Your task to perform on an android device: visit the assistant section in the google photos Image 0: 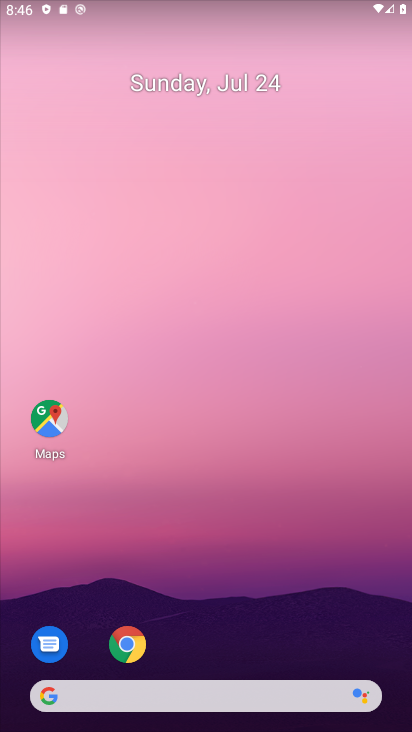
Step 0: drag from (194, 480) to (241, 253)
Your task to perform on an android device: visit the assistant section in the google photos Image 1: 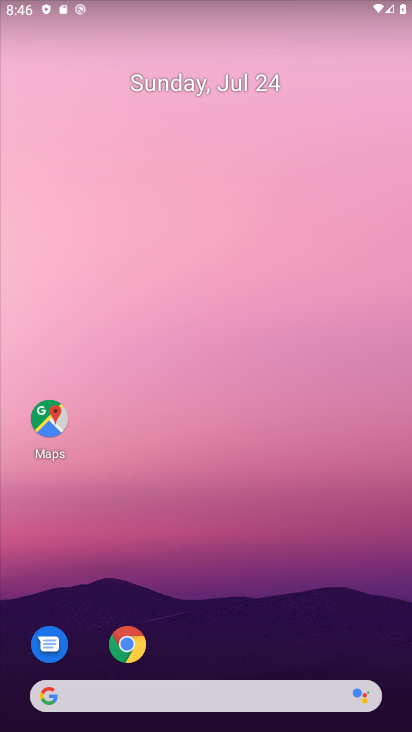
Step 1: drag from (224, 599) to (235, 225)
Your task to perform on an android device: visit the assistant section in the google photos Image 2: 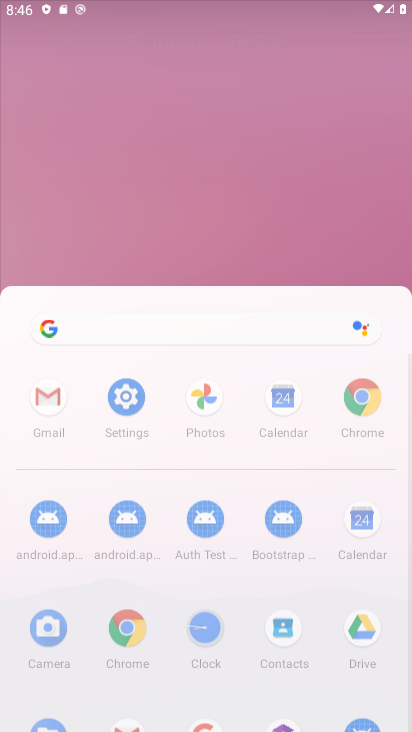
Step 2: drag from (284, 569) to (263, 147)
Your task to perform on an android device: visit the assistant section in the google photos Image 3: 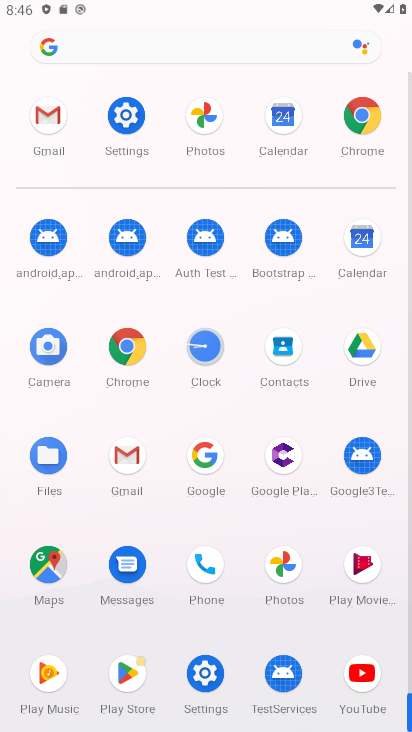
Step 3: drag from (178, 575) to (180, 225)
Your task to perform on an android device: visit the assistant section in the google photos Image 4: 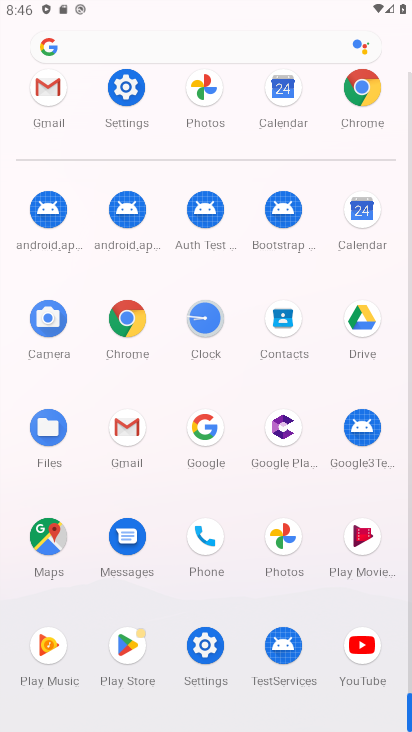
Step 4: drag from (242, 664) to (244, 441)
Your task to perform on an android device: visit the assistant section in the google photos Image 5: 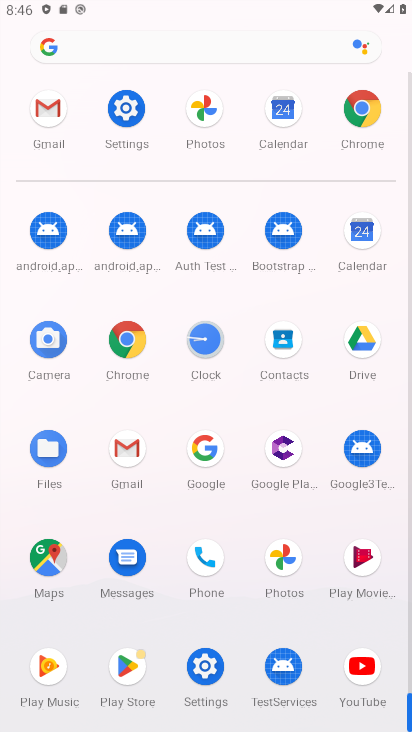
Step 5: click (279, 561)
Your task to perform on an android device: visit the assistant section in the google photos Image 6: 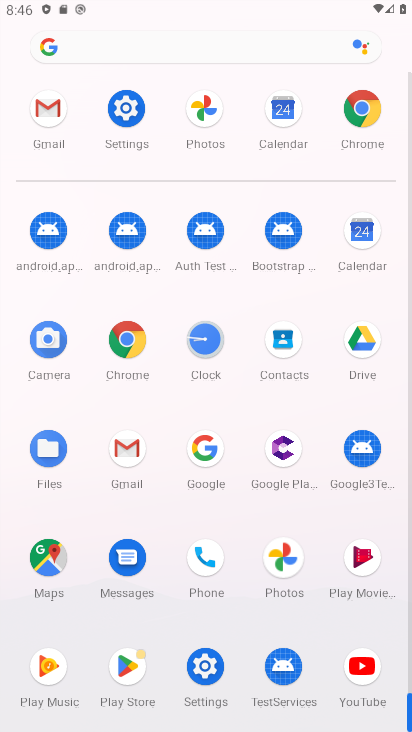
Step 6: click (280, 560)
Your task to perform on an android device: visit the assistant section in the google photos Image 7: 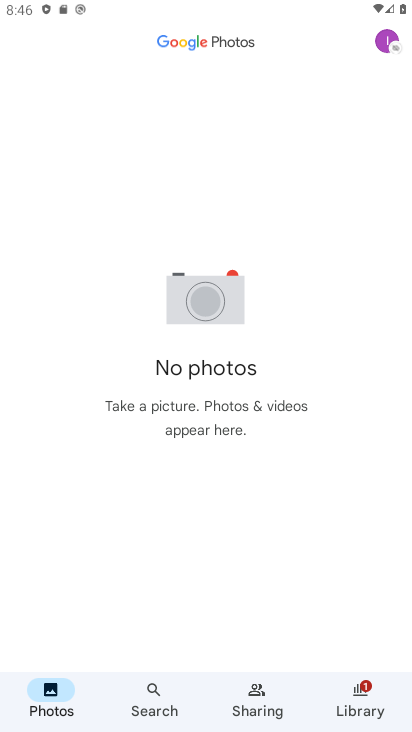
Step 7: drag from (111, 130) to (221, 563)
Your task to perform on an android device: visit the assistant section in the google photos Image 8: 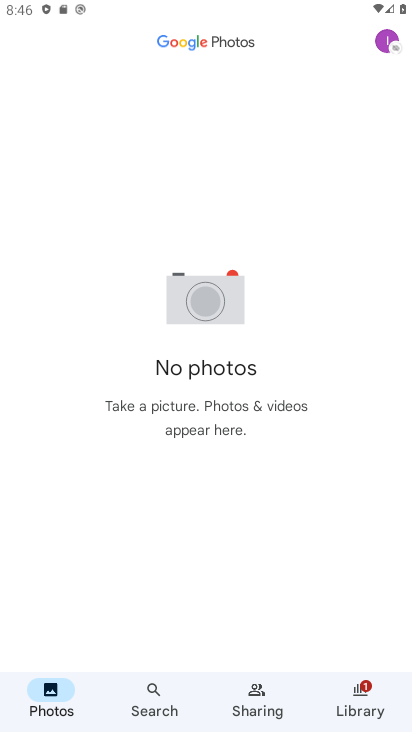
Step 8: drag from (180, 333) to (204, 722)
Your task to perform on an android device: visit the assistant section in the google photos Image 9: 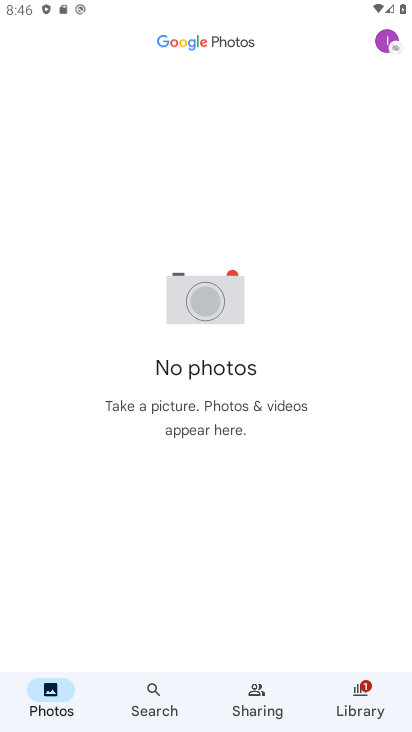
Step 9: drag from (134, 438) to (348, 677)
Your task to perform on an android device: visit the assistant section in the google photos Image 10: 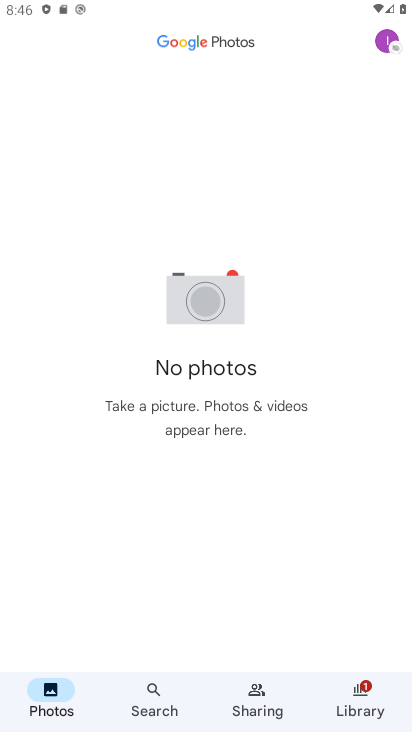
Step 10: drag from (343, 443) to (368, 685)
Your task to perform on an android device: visit the assistant section in the google photos Image 11: 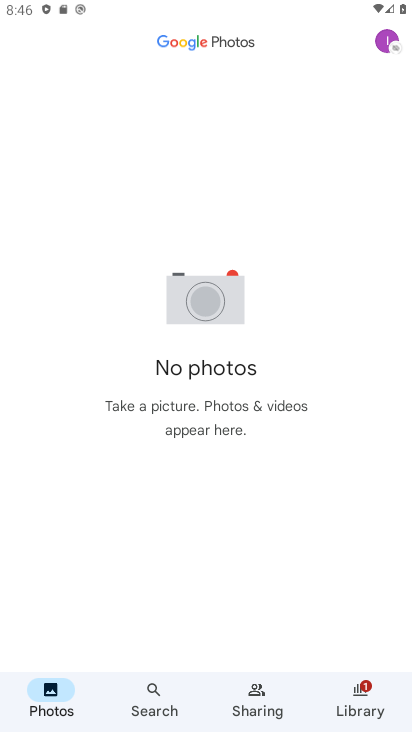
Step 11: drag from (296, 268) to (271, 629)
Your task to perform on an android device: visit the assistant section in the google photos Image 12: 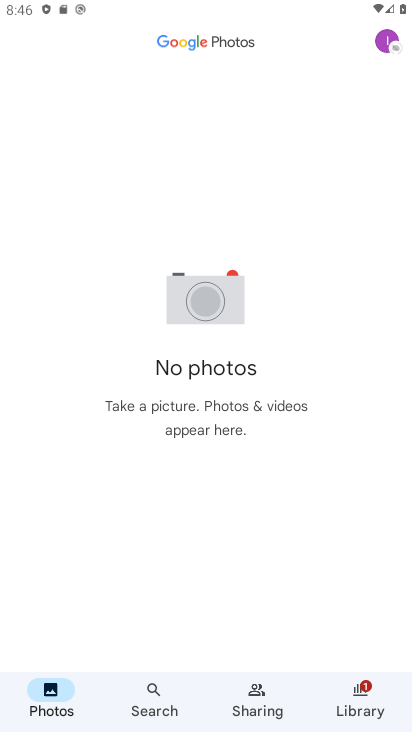
Step 12: drag from (225, 316) to (258, 697)
Your task to perform on an android device: visit the assistant section in the google photos Image 13: 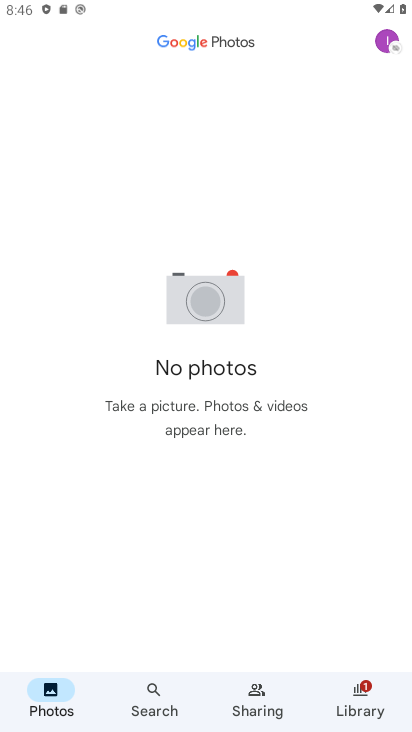
Step 13: click (373, 43)
Your task to perform on an android device: visit the assistant section in the google photos Image 14: 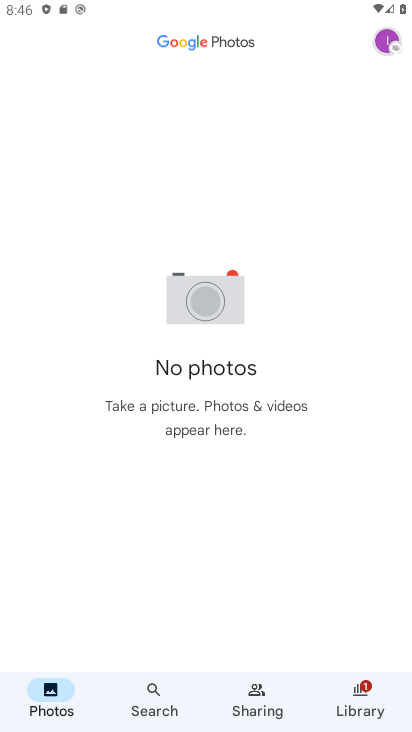
Step 14: click (375, 41)
Your task to perform on an android device: visit the assistant section in the google photos Image 15: 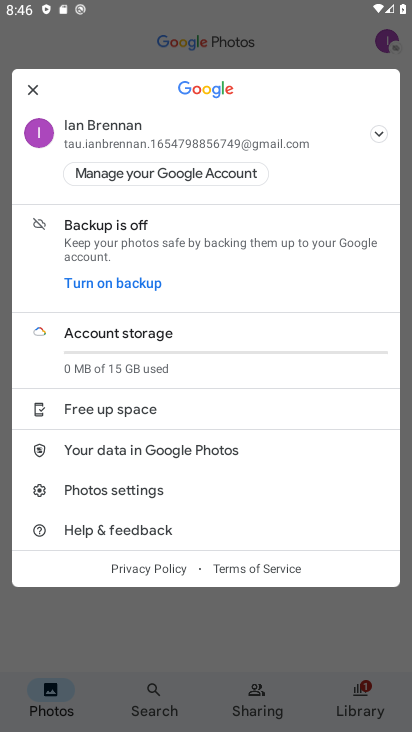
Step 15: click (85, 32)
Your task to perform on an android device: visit the assistant section in the google photos Image 16: 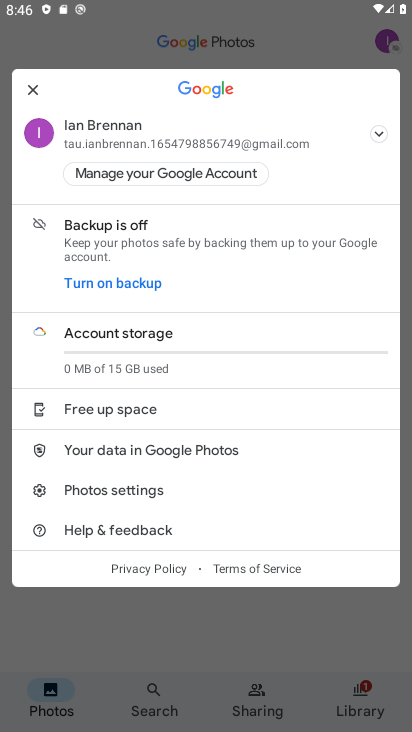
Step 16: click (92, 29)
Your task to perform on an android device: visit the assistant section in the google photos Image 17: 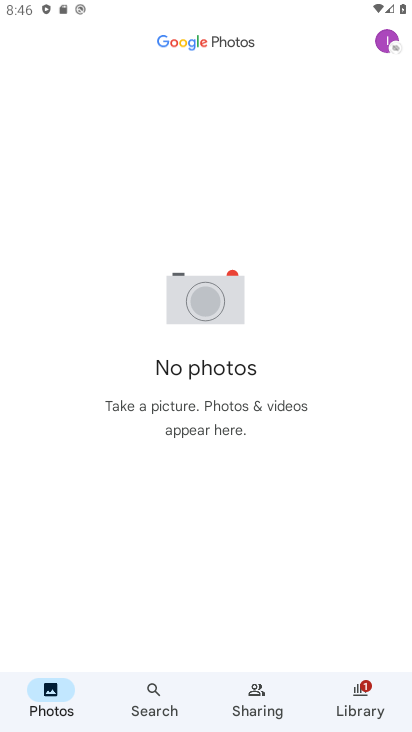
Step 17: task complete